Your task to perform on an android device: Open notification settings Image 0: 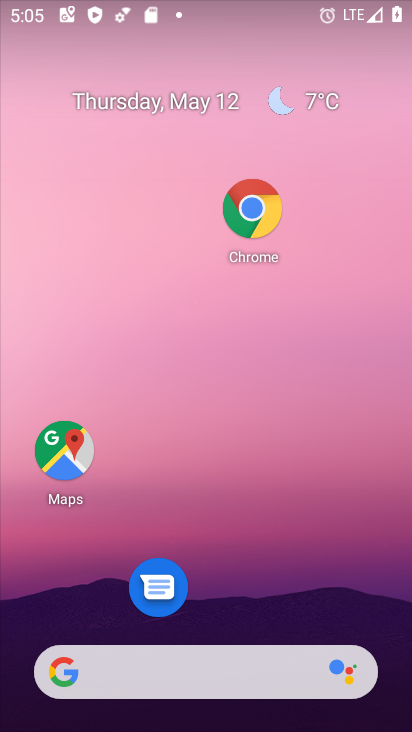
Step 0: drag from (249, 579) to (284, 65)
Your task to perform on an android device: Open notification settings Image 1: 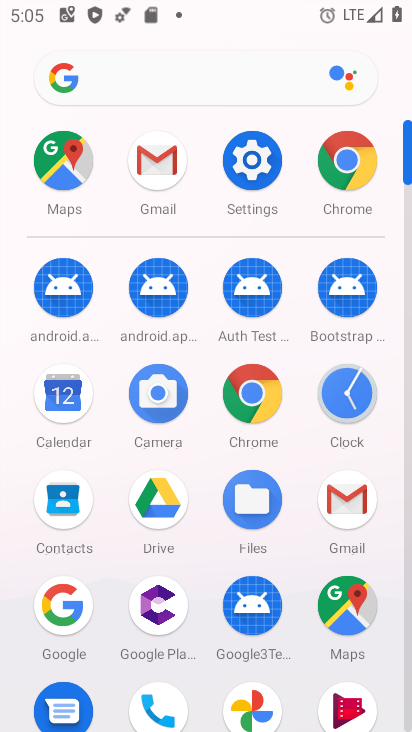
Step 1: click (235, 200)
Your task to perform on an android device: Open notification settings Image 2: 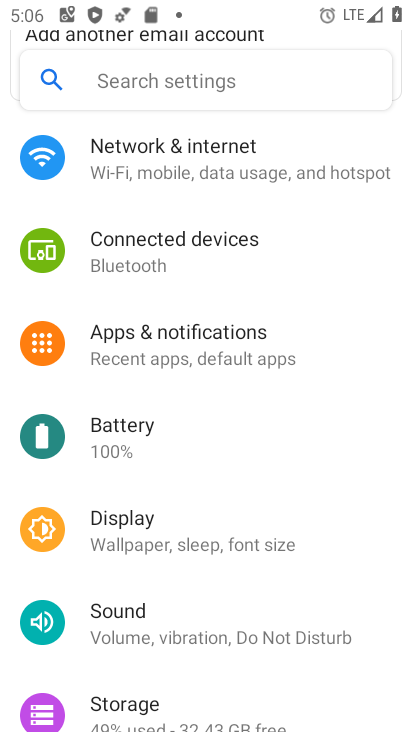
Step 2: click (186, 351)
Your task to perform on an android device: Open notification settings Image 3: 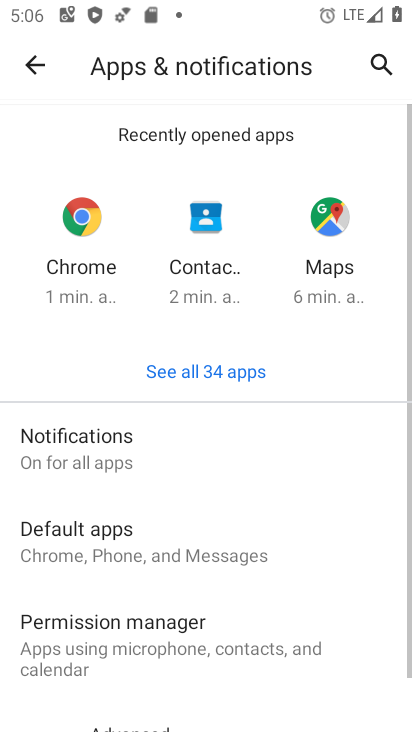
Step 3: click (80, 459)
Your task to perform on an android device: Open notification settings Image 4: 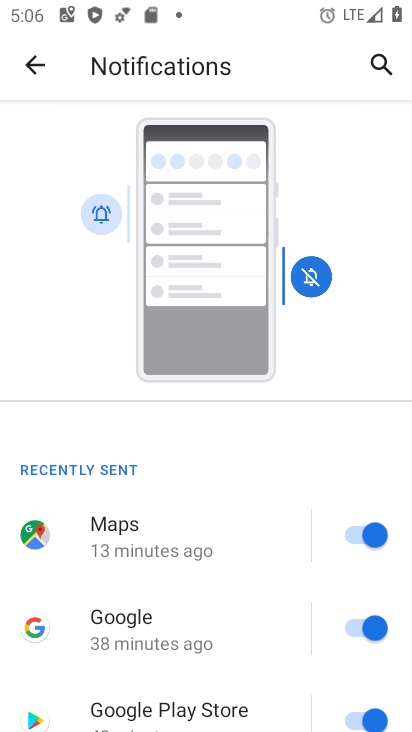
Step 4: task complete